Your task to perform on an android device: toggle sleep mode Image 0: 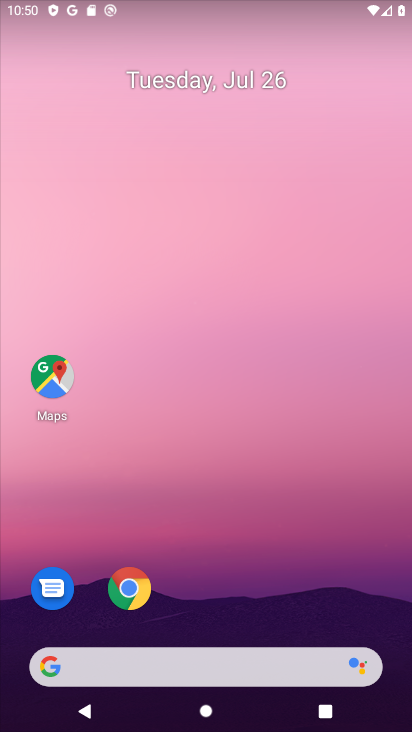
Step 0: drag from (221, 623) to (244, 0)
Your task to perform on an android device: toggle sleep mode Image 1: 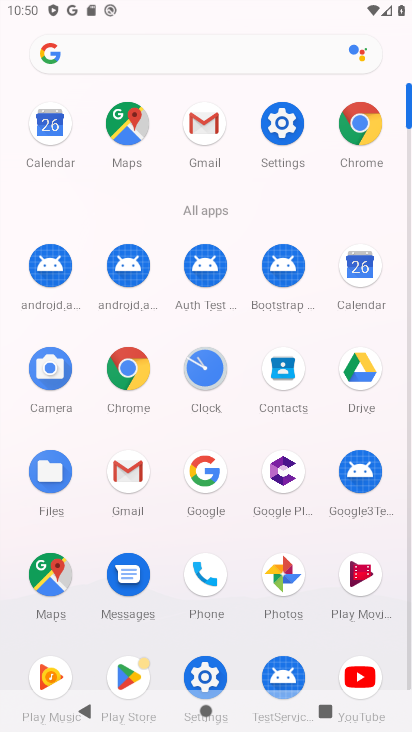
Step 1: click (276, 121)
Your task to perform on an android device: toggle sleep mode Image 2: 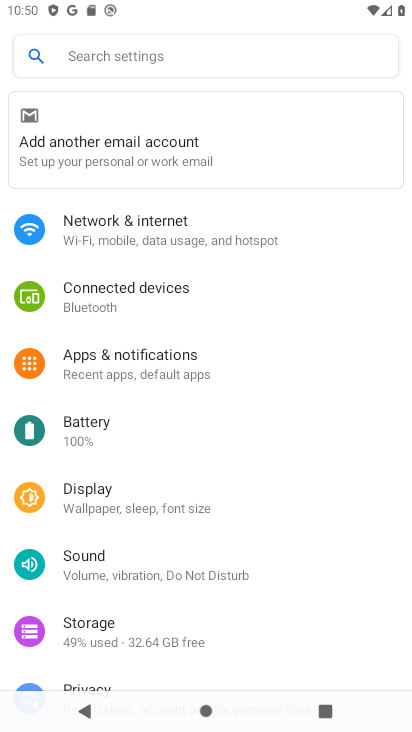
Step 2: click (116, 492)
Your task to perform on an android device: toggle sleep mode Image 3: 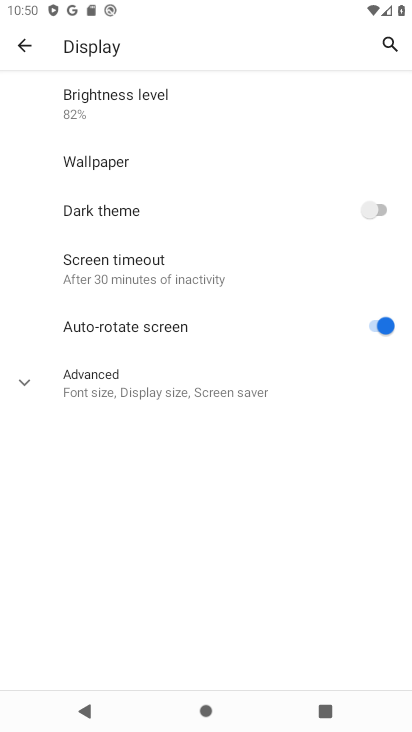
Step 3: click (26, 379)
Your task to perform on an android device: toggle sleep mode Image 4: 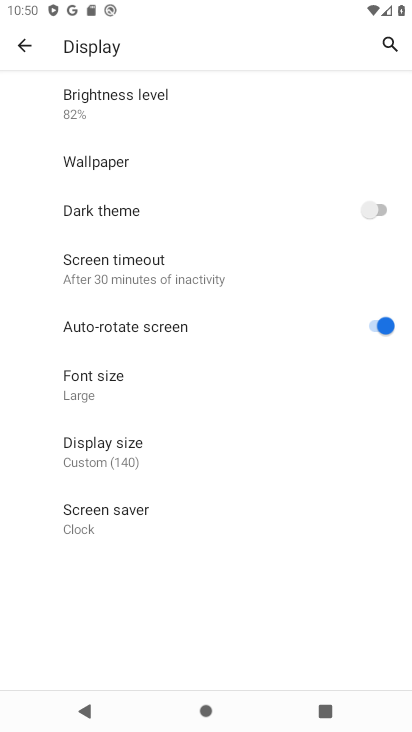
Step 4: task complete